Your task to perform on an android device: turn on wifi Image 0: 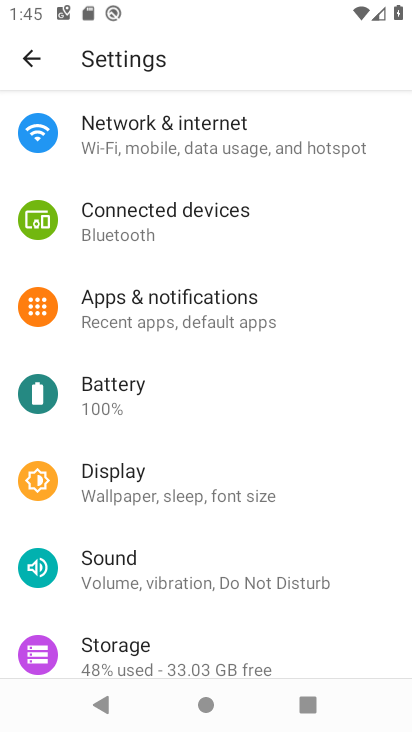
Step 0: press home button
Your task to perform on an android device: turn on wifi Image 1: 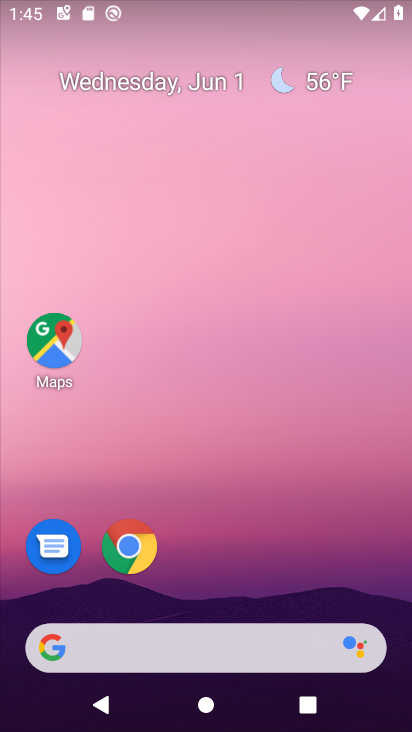
Step 1: task complete